Your task to perform on an android device: Open privacy settings Image 0: 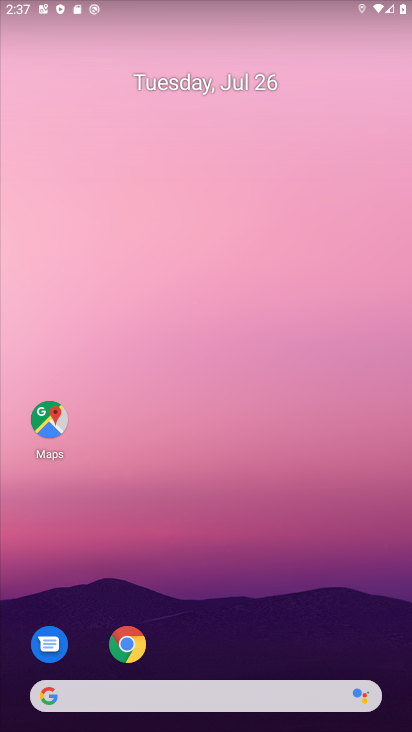
Step 0: press home button
Your task to perform on an android device: Open privacy settings Image 1: 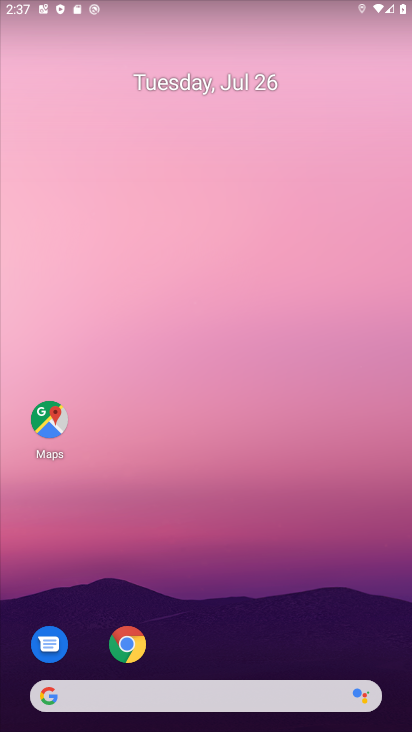
Step 1: drag from (249, 645) to (260, 91)
Your task to perform on an android device: Open privacy settings Image 2: 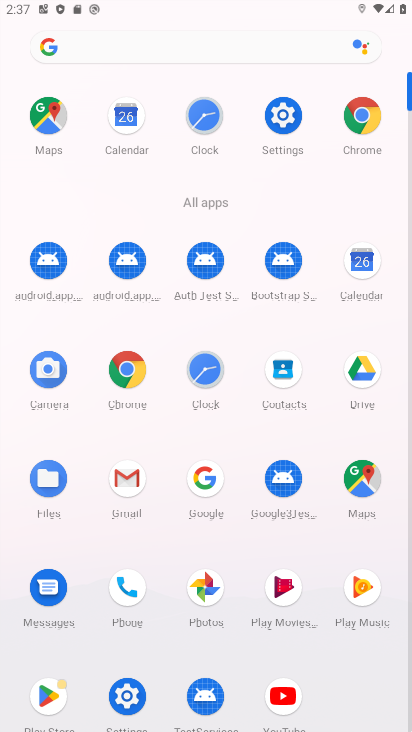
Step 2: click (294, 112)
Your task to perform on an android device: Open privacy settings Image 3: 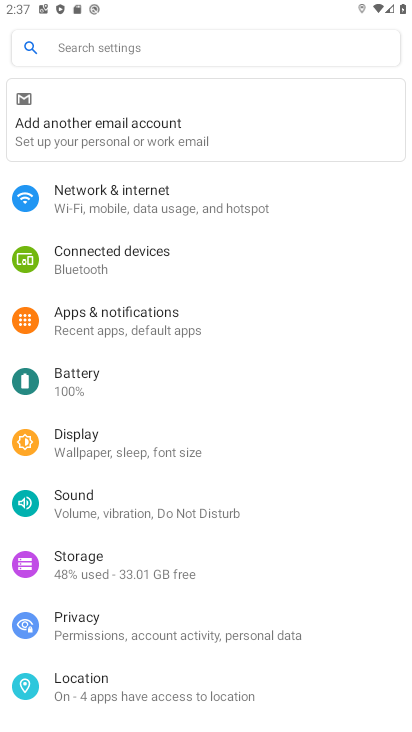
Step 3: click (99, 623)
Your task to perform on an android device: Open privacy settings Image 4: 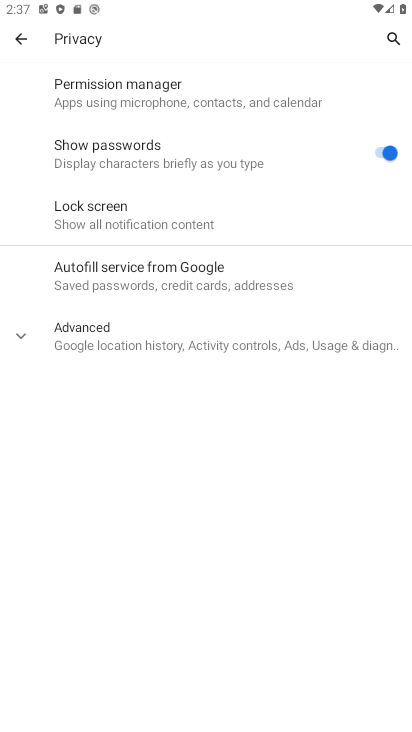
Step 4: task complete